Your task to perform on an android device: all mails in gmail Image 0: 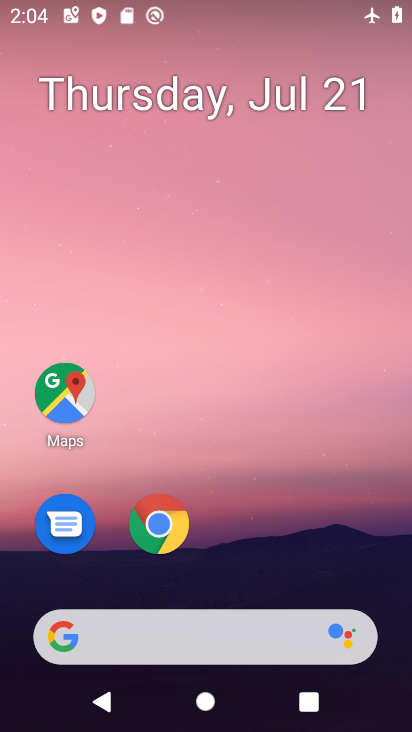
Step 0: drag from (277, 551) to (264, 81)
Your task to perform on an android device: all mails in gmail Image 1: 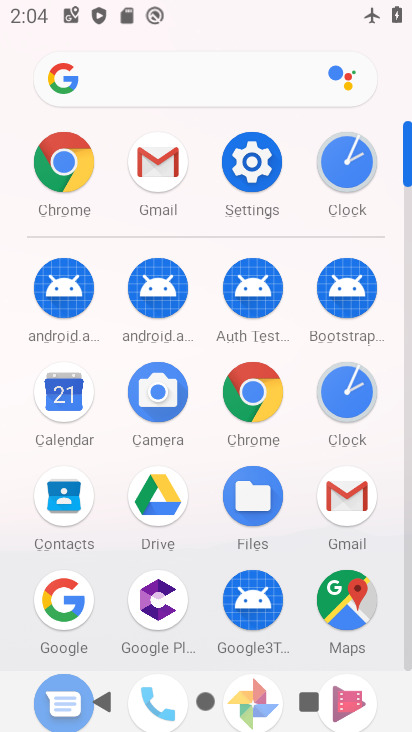
Step 1: click (159, 162)
Your task to perform on an android device: all mails in gmail Image 2: 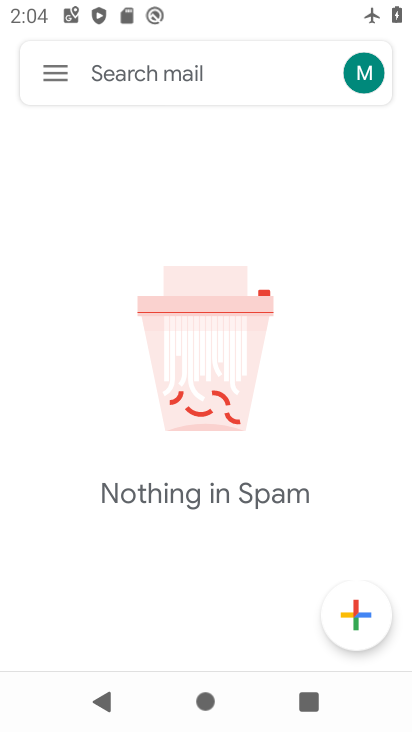
Step 2: click (50, 69)
Your task to perform on an android device: all mails in gmail Image 3: 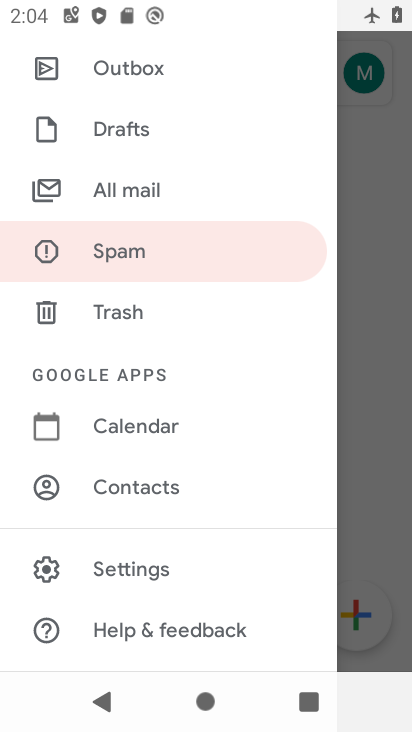
Step 3: click (117, 175)
Your task to perform on an android device: all mails in gmail Image 4: 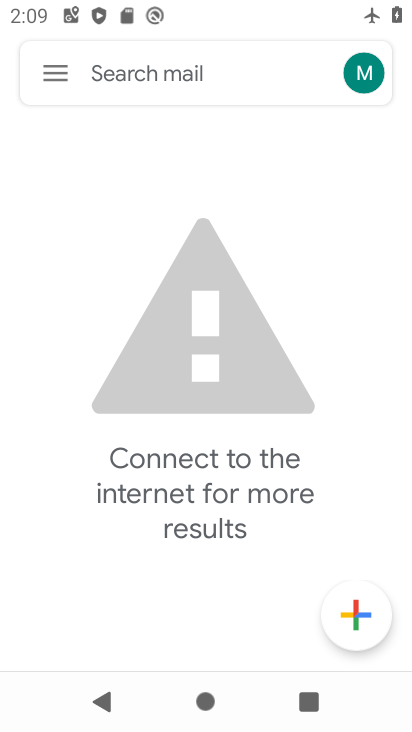
Step 4: task complete